Your task to perform on an android device: Open Youtube and go to "Your channel" Image 0: 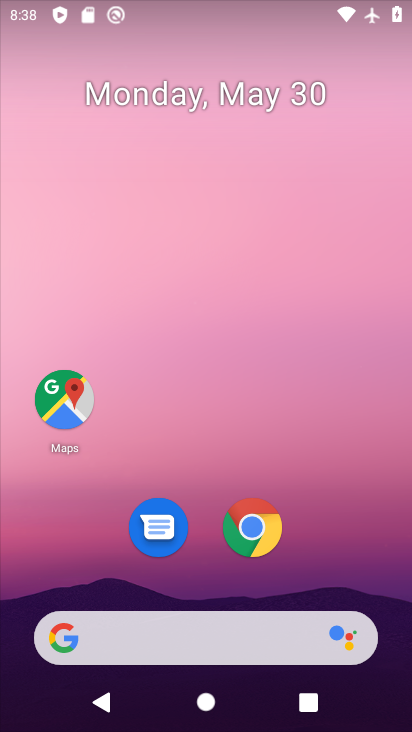
Step 0: drag from (322, 586) to (312, 4)
Your task to perform on an android device: Open Youtube and go to "Your channel" Image 1: 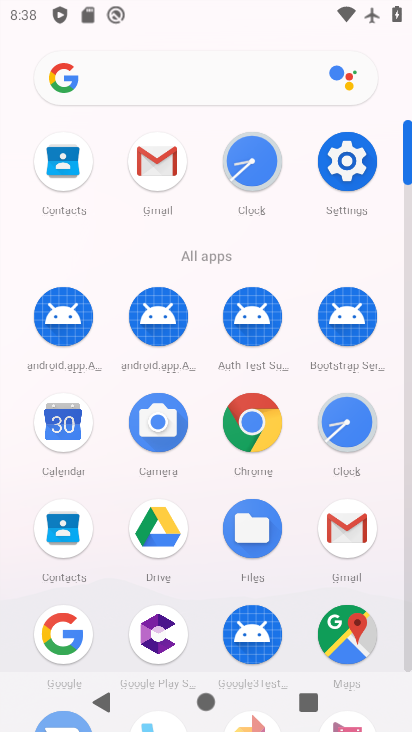
Step 1: drag from (296, 547) to (265, 41)
Your task to perform on an android device: Open Youtube and go to "Your channel" Image 2: 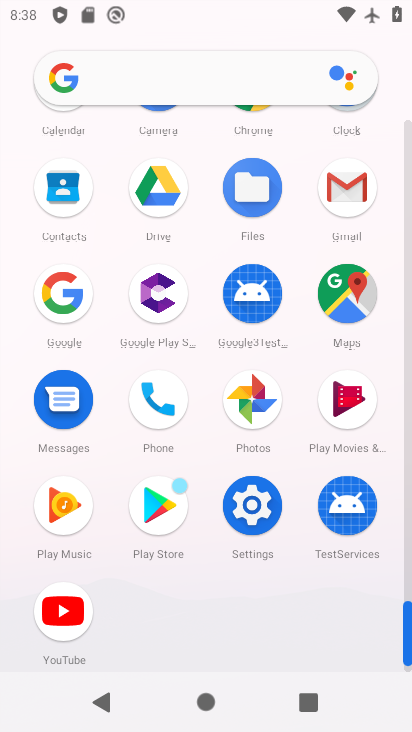
Step 2: click (56, 614)
Your task to perform on an android device: Open Youtube and go to "Your channel" Image 3: 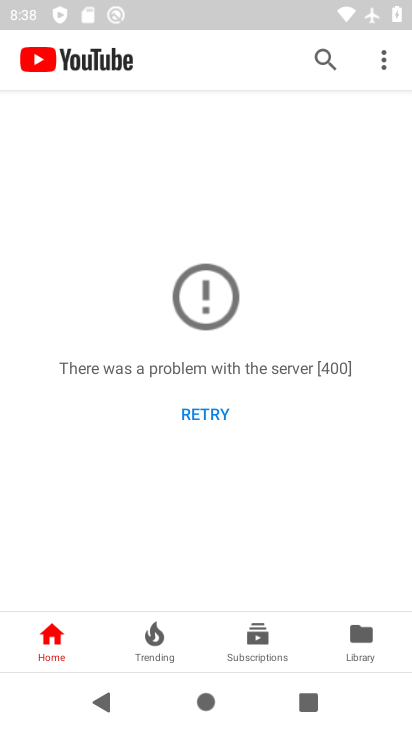
Step 3: click (208, 418)
Your task to perform on an android device: Open Youtube and go to "Your channel" Image 4: 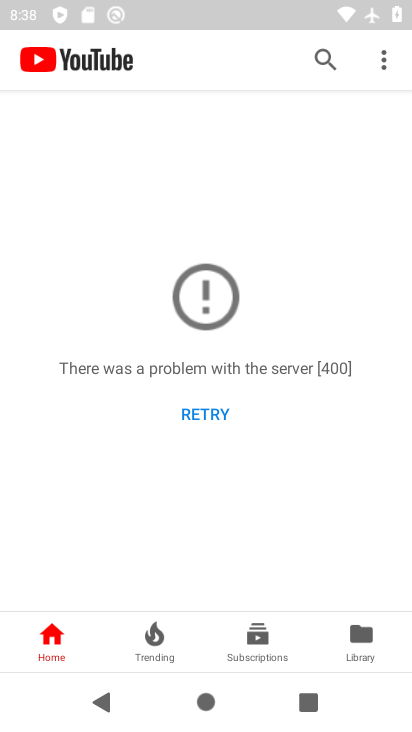
Step 4: click (205, 410)
Your task to perform on an android device: Open Youtube and go to "Your channel" Image 5: 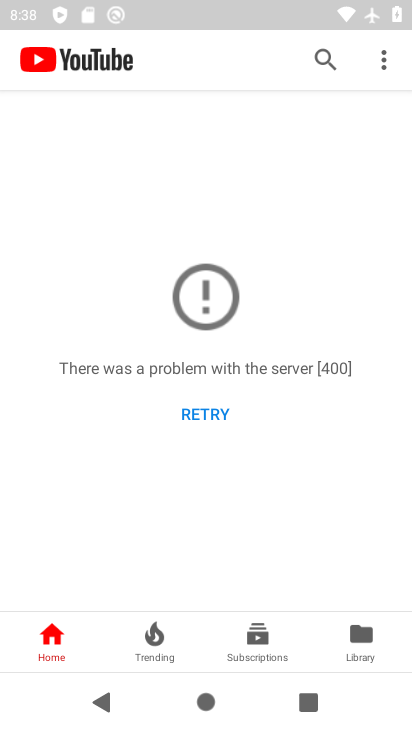
Step 5: click (202, 405)
Your task to perform on an android device: Open Youtube and go to "Your channel" Image 6: 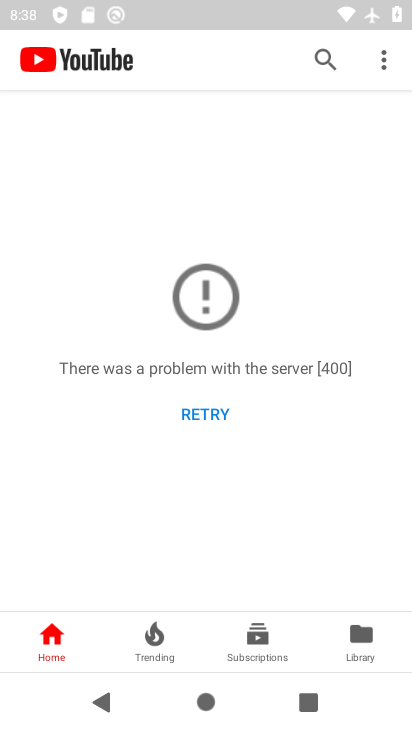
Step 6: click (202, 404)
Your task to perform on an android device: Open Youtube and go to "Your channel" Image 7: 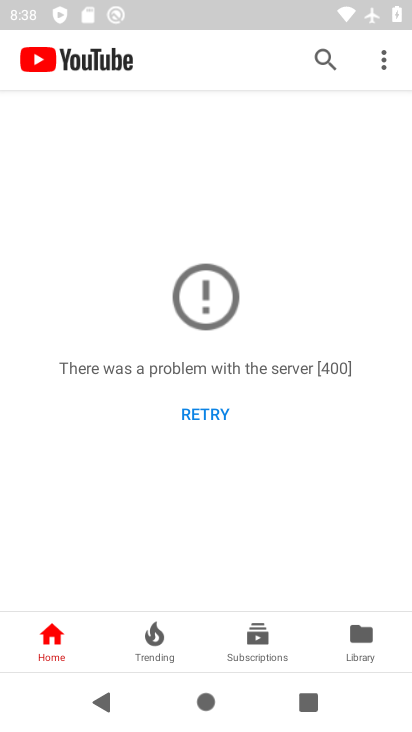
Step 7: click (202, 404)
Your task to perform on an android device: Open Youtube and go to "Your channel" Image 8: 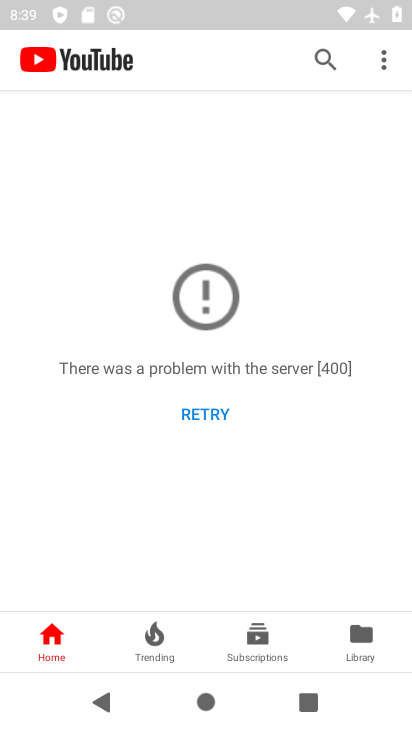
Step 8: task complete